Your task to perform on an android device: delete the emails in spam in the gmail app Image 0: 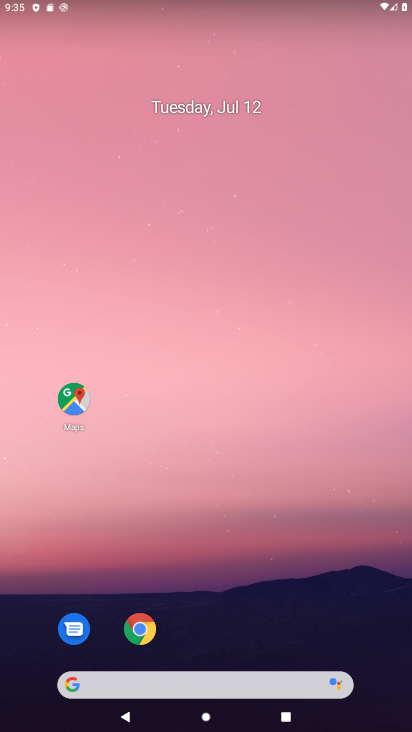
Step 0: drag from (256, 520) to (203, 71)
Your task to perform on an android device: delete the emails in spam in the gmail app Image 1: 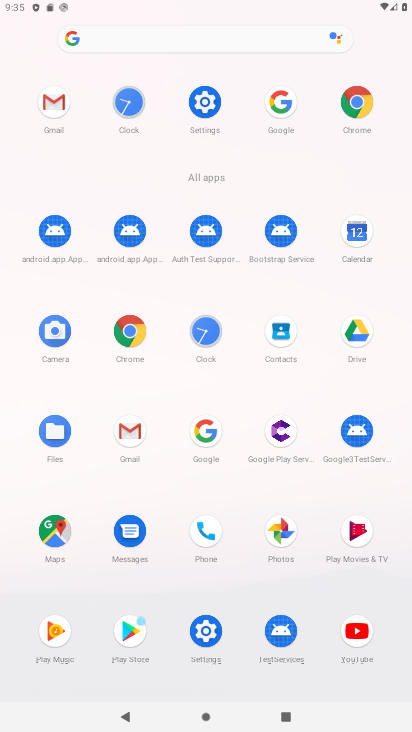
Step 1: click (56, 111)
Your task to perform on an android device: delete the emails in spam in the gmail app Image 2: 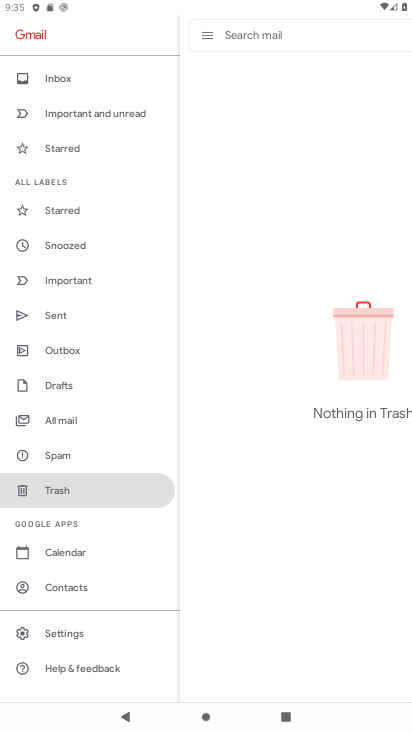
Step 2: click (60, 458)
Your task to perform on an android device: delete the emails in spam in the gmail app Image 3: 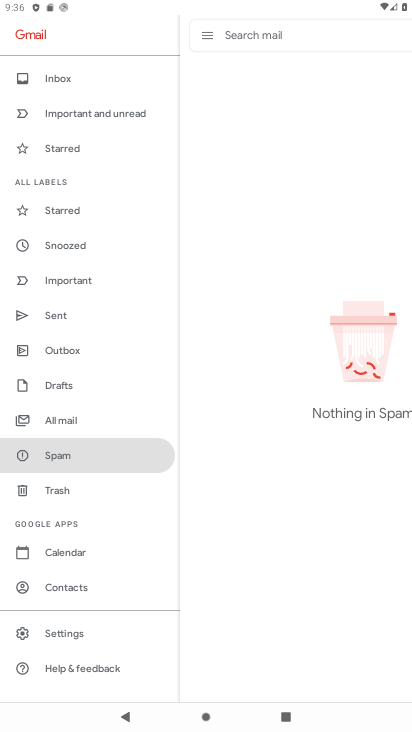
Step 3: task complete